Your task to perform on an android device: Open the Play Movies app and select the watchlist tab. Image 0: 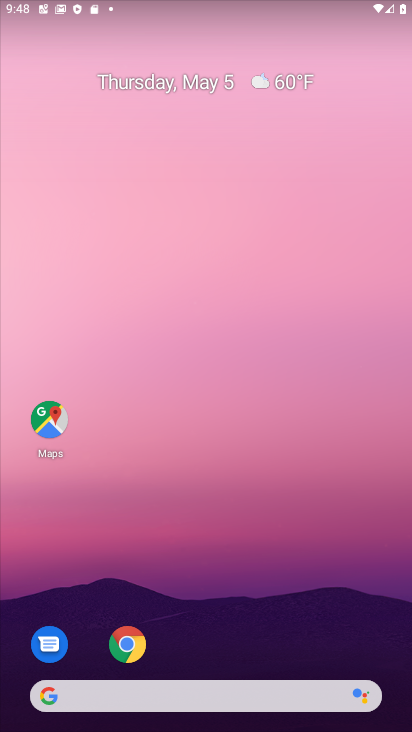
Step 0: drag from (193, 659) to (231, 200)
Your task to perform on an android device: Open the Play Movies app and select the watchlist tab. Image 1: 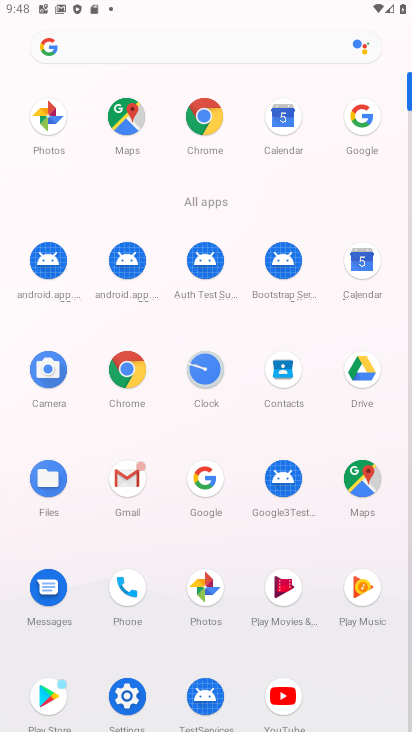
Step 1: click (292, 580)
Your task to perform on an android device: Open the Play Movies app and select the watchlist tab. Image 2: 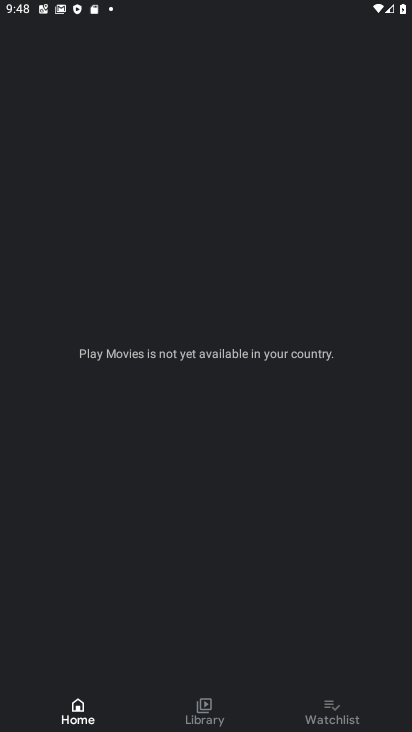
Step 2: click (326, 710)
Your task to perform on an android device: Open the Play Movies app and select the watchlist tab. Image 3: 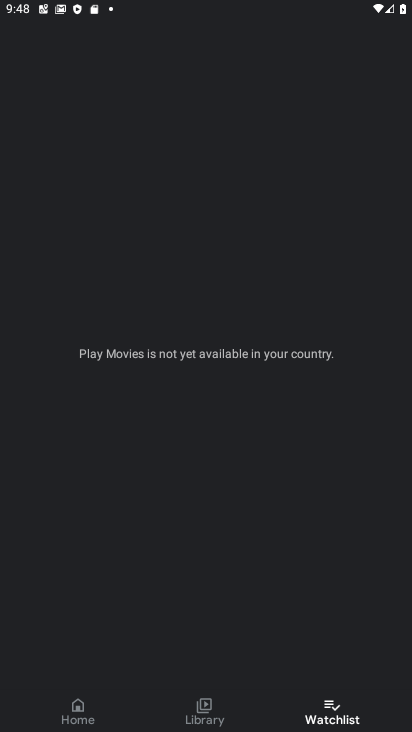
Step 3: task complete